Your task to perform on an android device: turn on notifications settings in the gmail app Image 0: 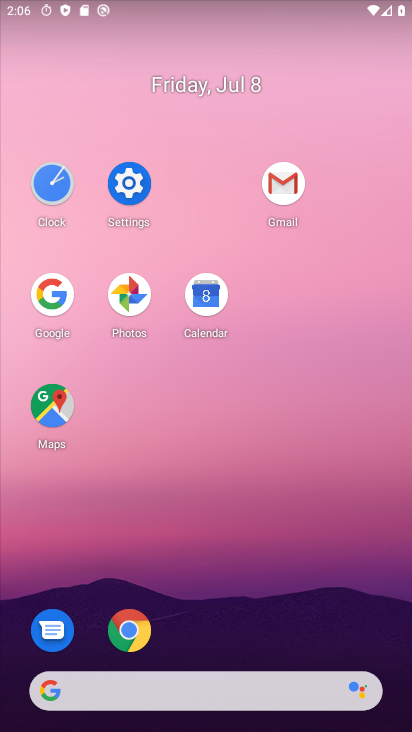
Step 0: click (286, 177)
Your task to perform on an android device: turn on notifications settings in the gmail app Image 1: 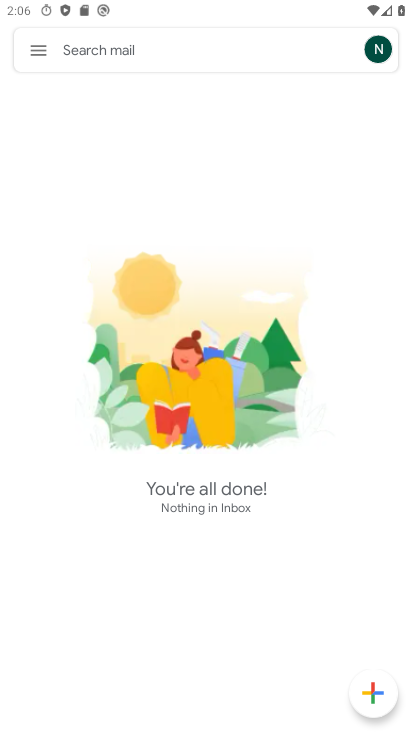
Step 1: click (42, 59)
Your task to perform on an android device: turn on notifications settings in the gmail app Image 2: 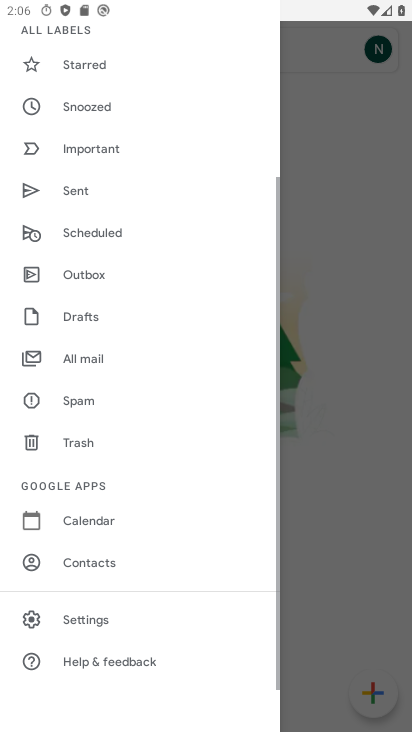
Step 2: click (127, 628)
Your task to perform on an android device: turn on notifications settings in the gmail app Image 3: 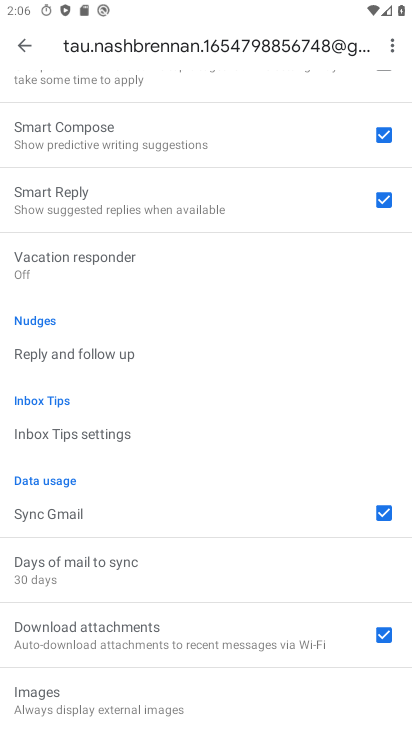
Step 3: drag from (147, 585) to (173, 233)
Your task to perform on an android device: turn on notifications settings in the gmail app Image 4: 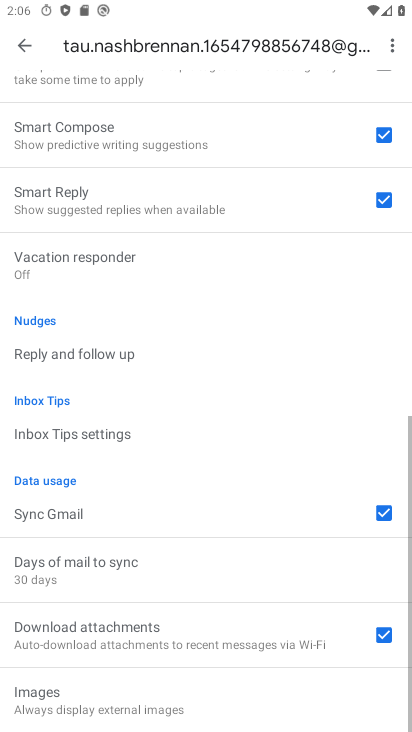
Step 4: drag from (174, 245) to (212, 638)
Your task to perform on an android device: turn on notifications settings in the gmail app Image 5: 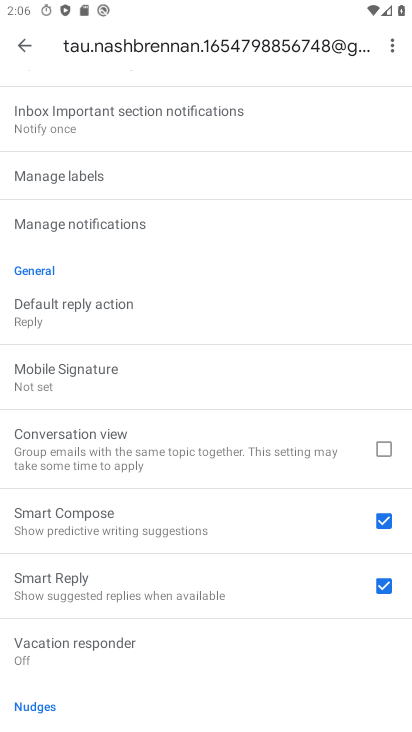
Step 5: click (96, 227)
Your task to perform on an android device: turn on notifications settings in the gmail app Image 6: 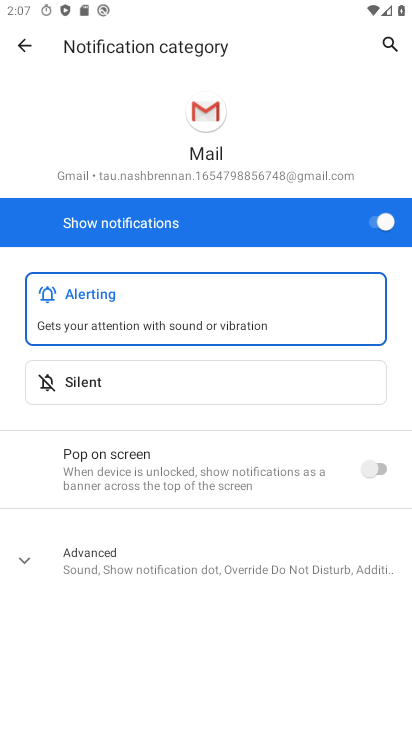
Step 6: task complete